Your task to perform on an android device: Go to notification settings Image 0: 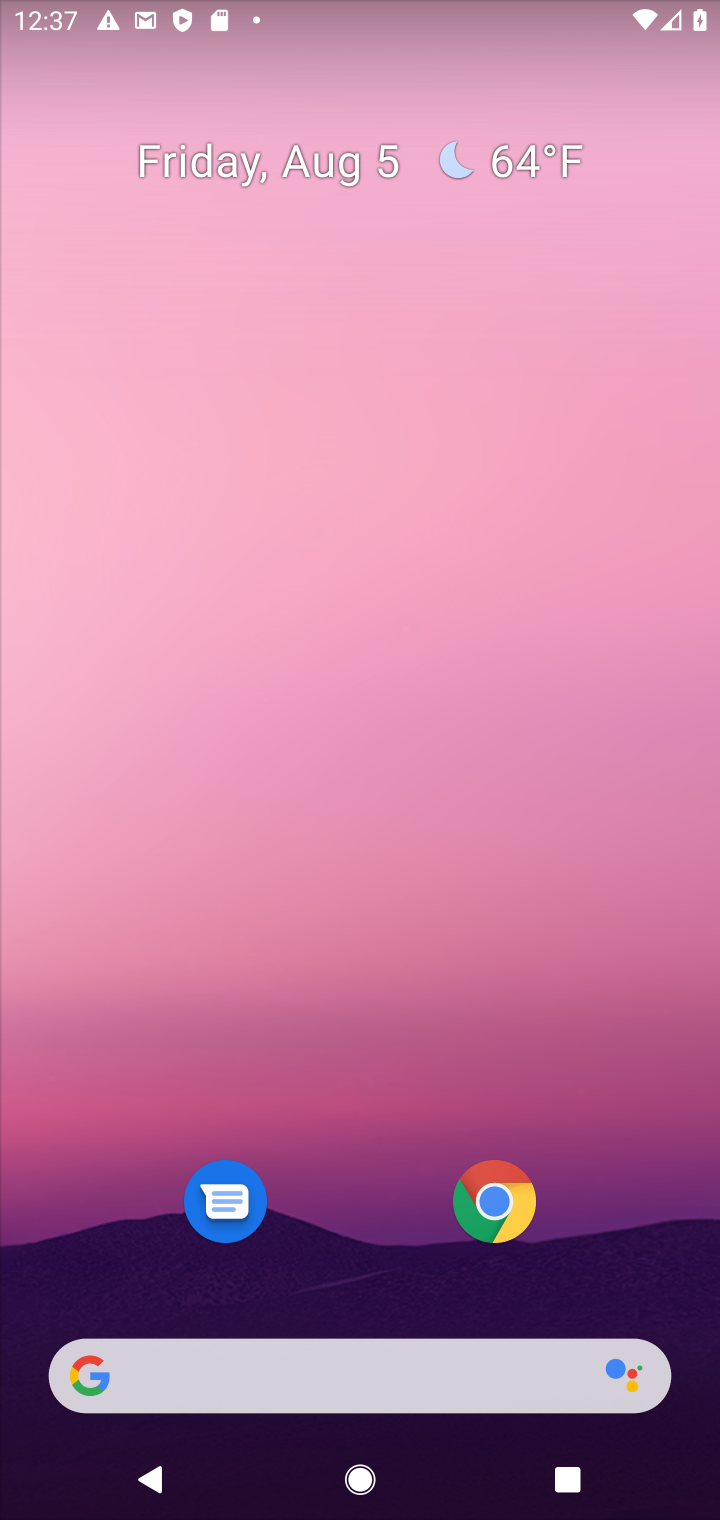
Step 0: drag from (358, 1147) to (669, 195)
Your task to perform on an android device: Go to notification settings Image 1: 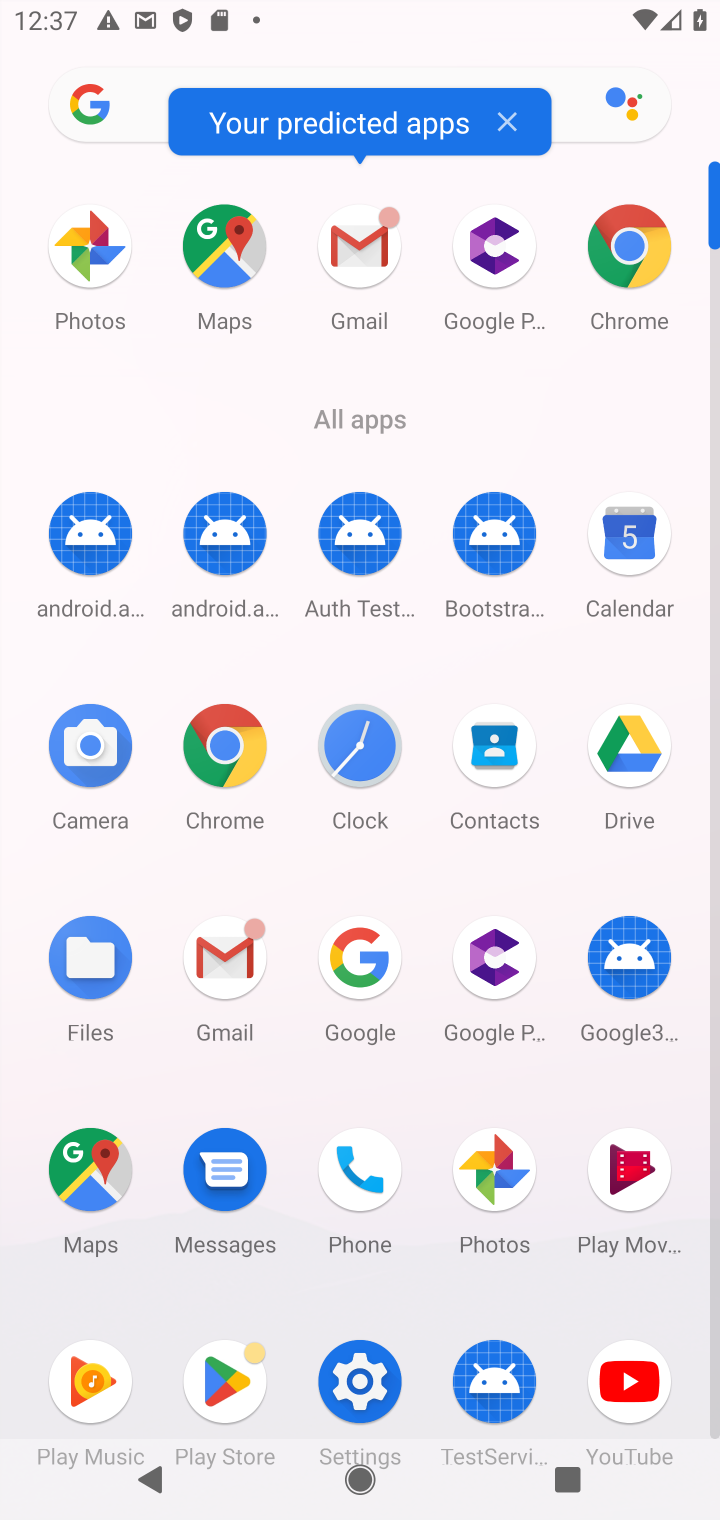
Step 1: click (379, 1391)
Your task to perform on an android device: Go to notification settings Image 2: 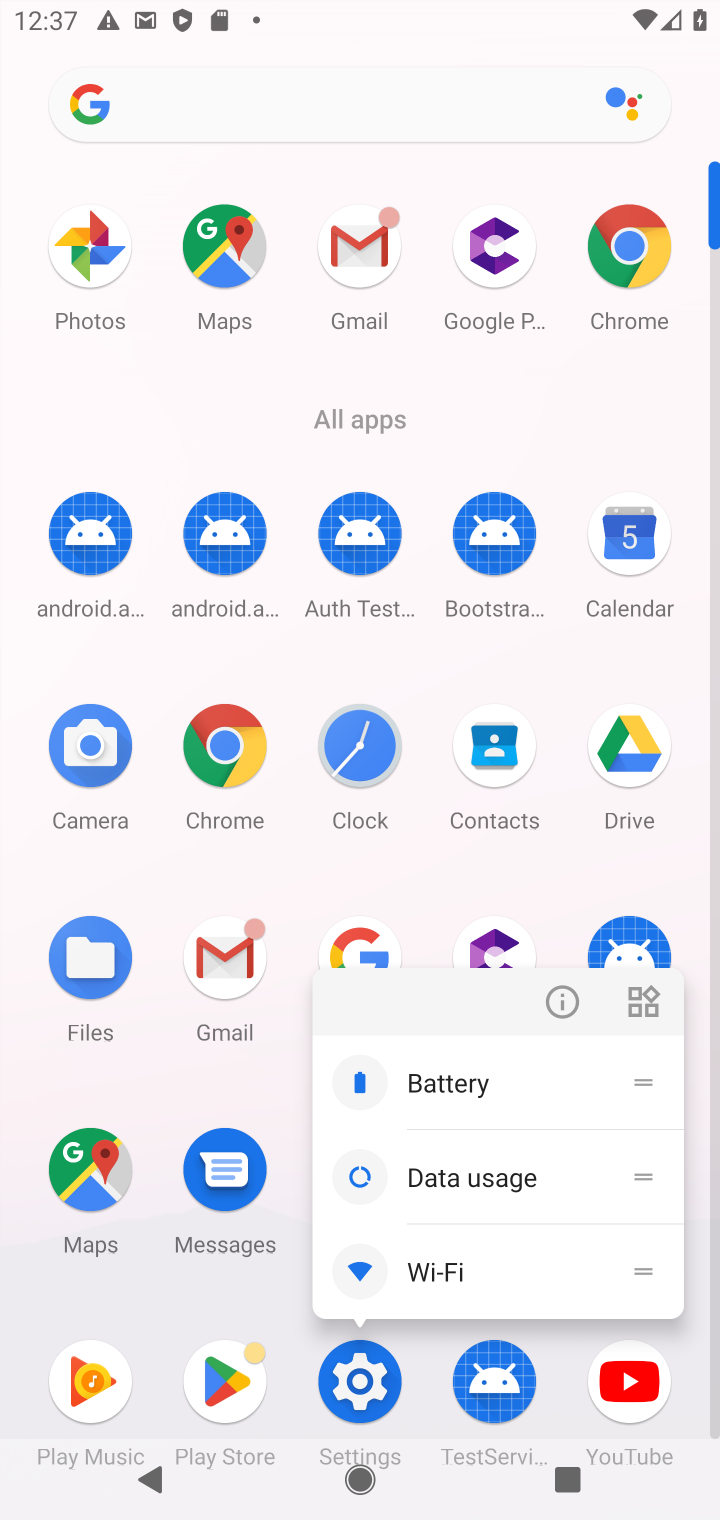
Step 2: click (352, 1403)
Your task to perform on an android device: Go to notification settings Image 3: 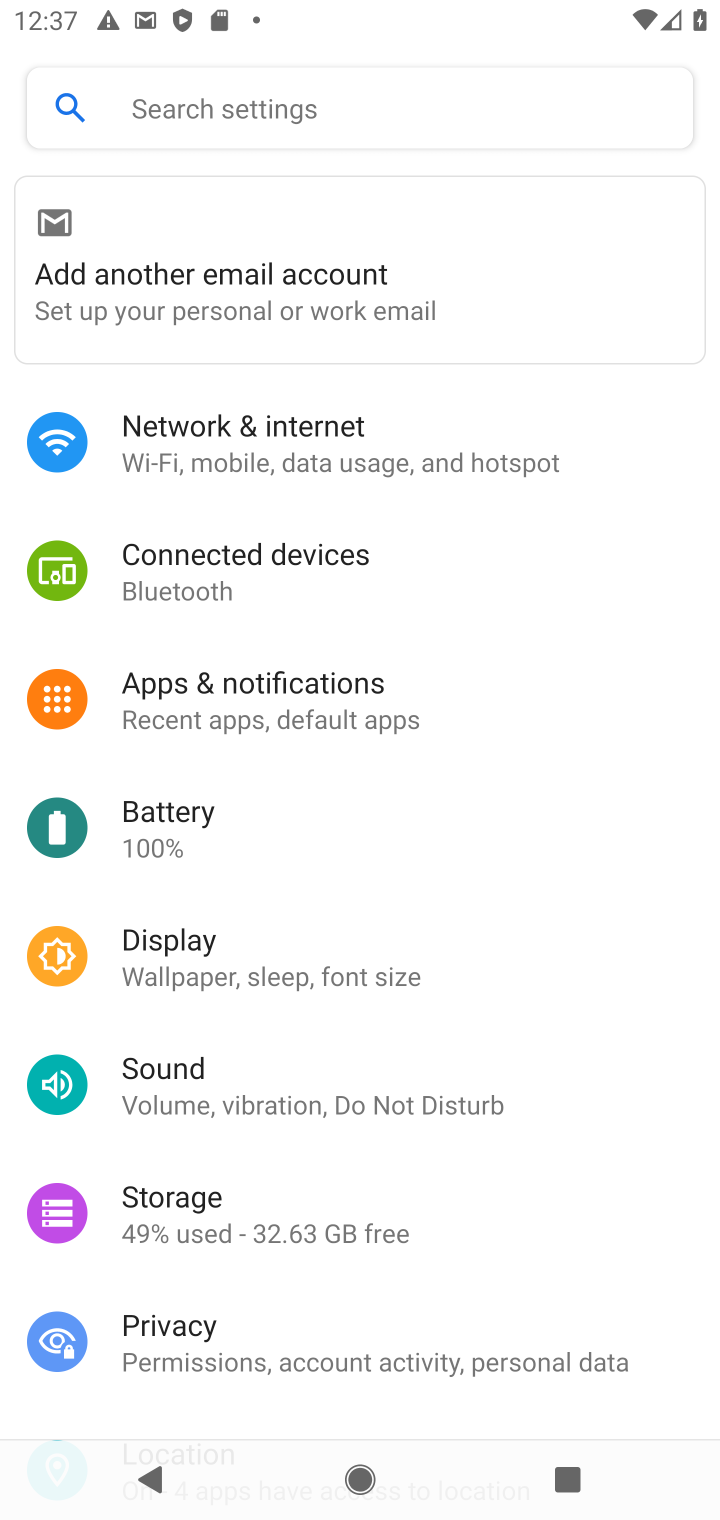
Step 3: drag from (263, 1207) to (323, 936)
Your task to perform on an android device: Go to notification settings Image 4: 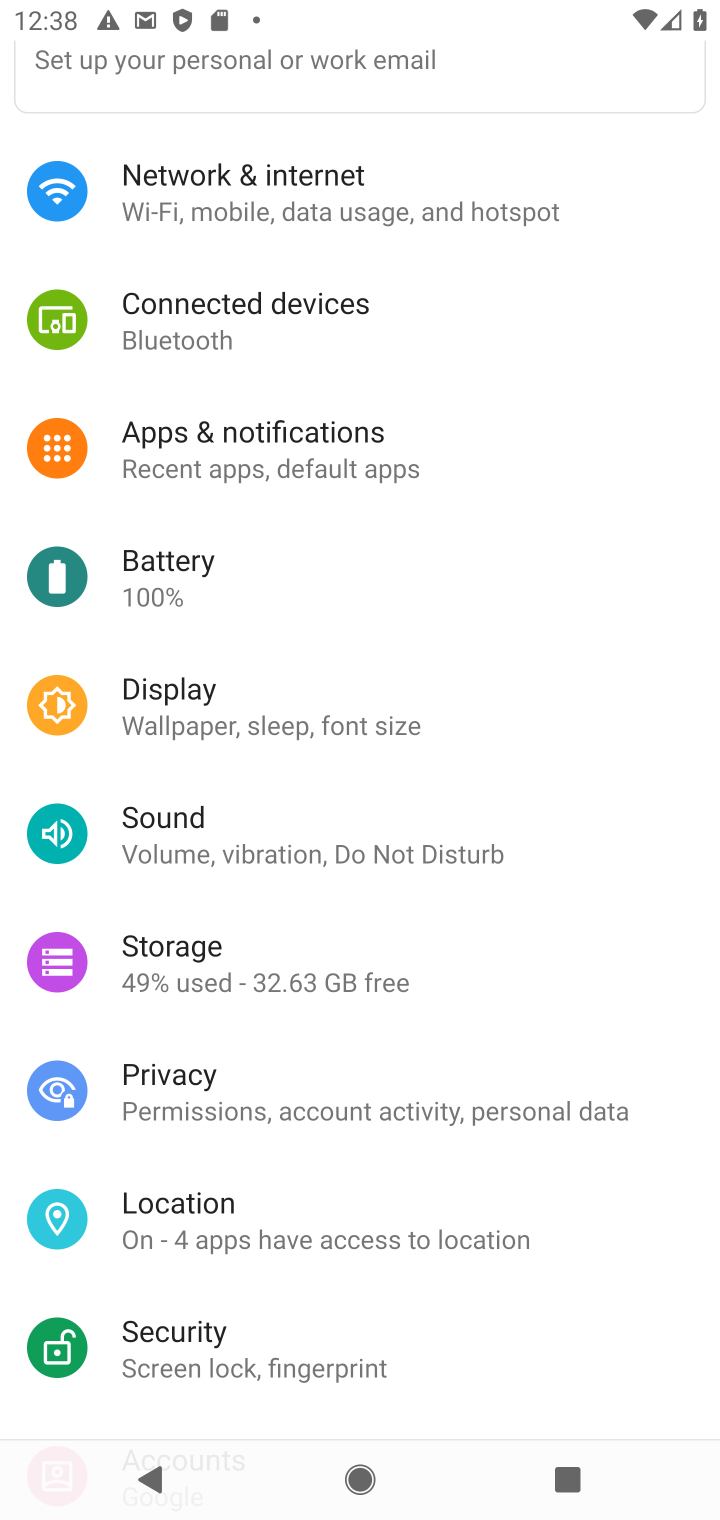
Step 4: click (342, 445)
Your task to perform on an android device: Go to notification settings Image 5: 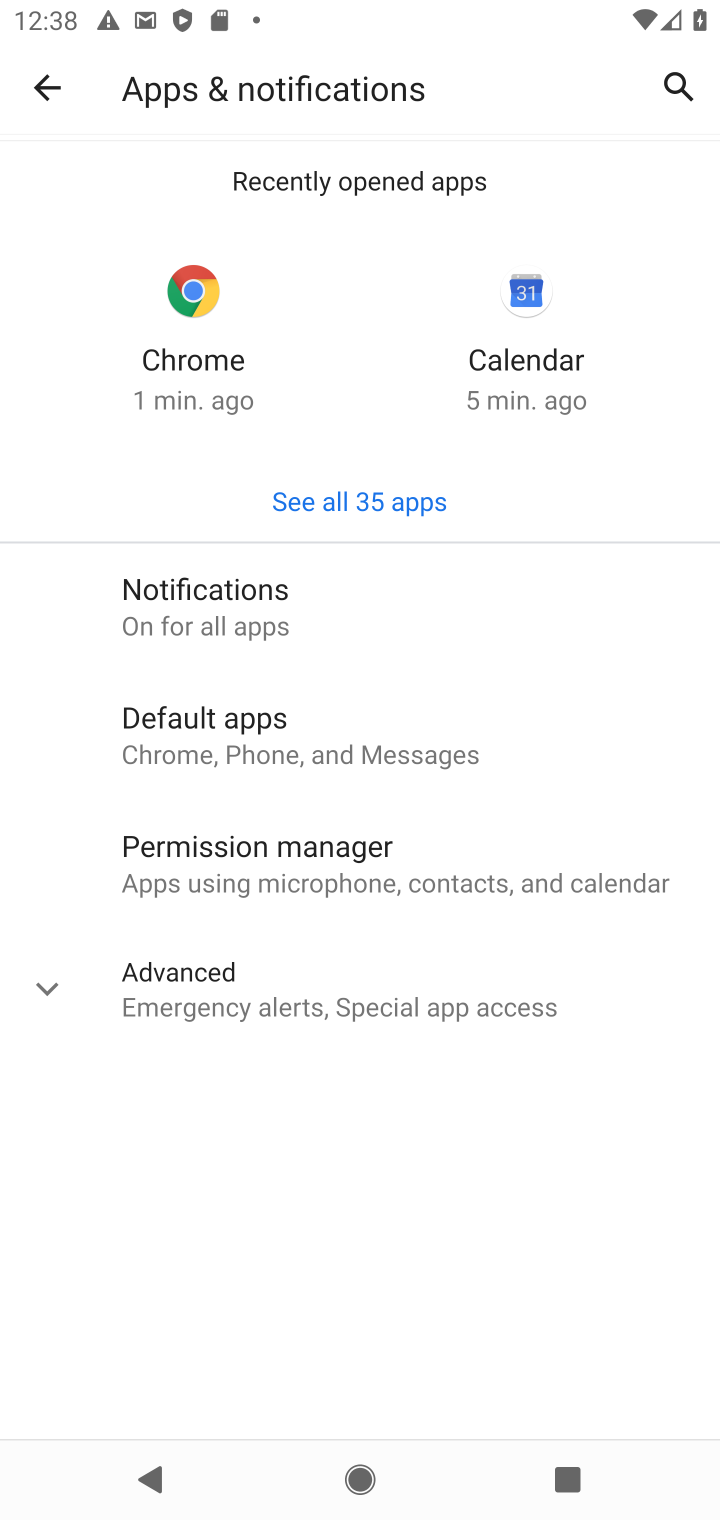
Step 5: click (291, 598)
Your task to perform on an android device: Go to notification settings Image 6: 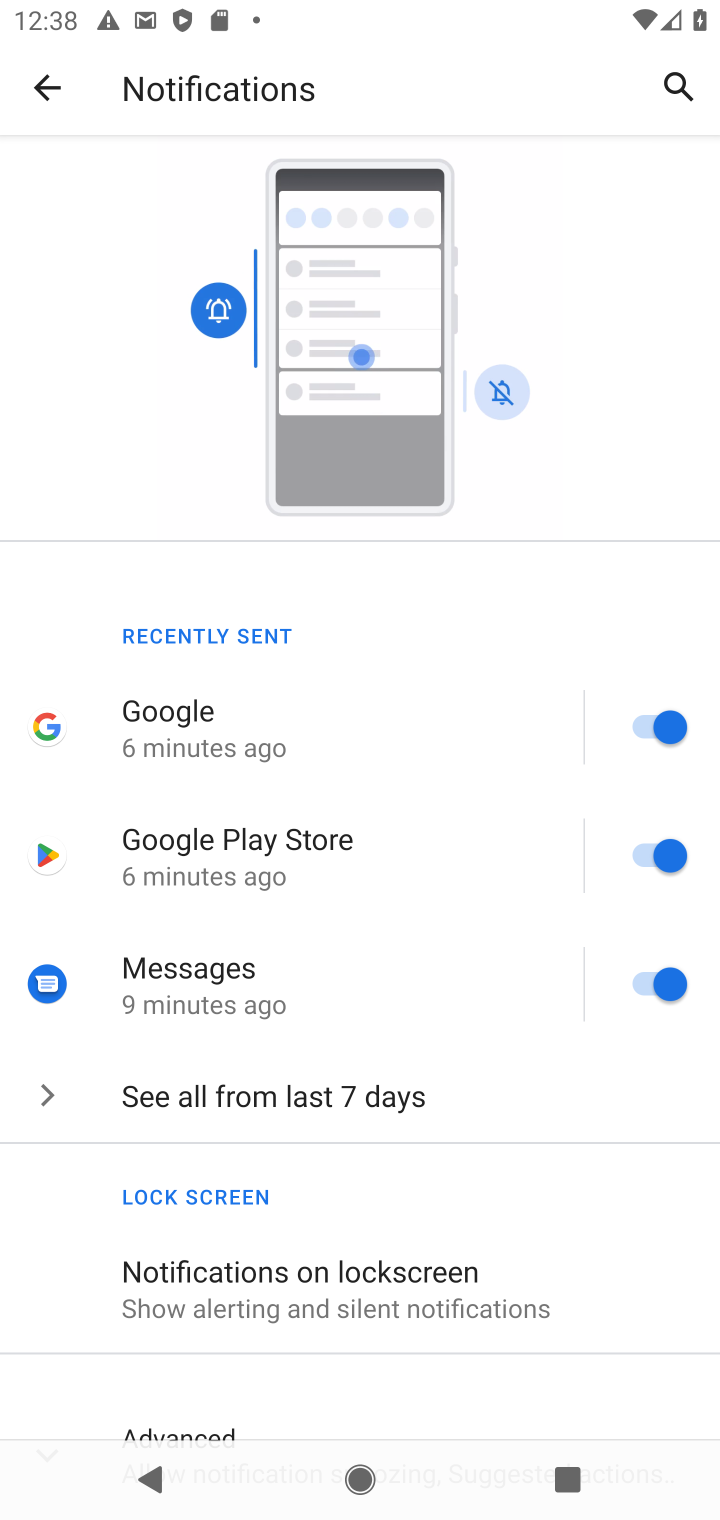
Step 6: task complete